Your task to perform on an android device: turn on airplane mode Image 0: 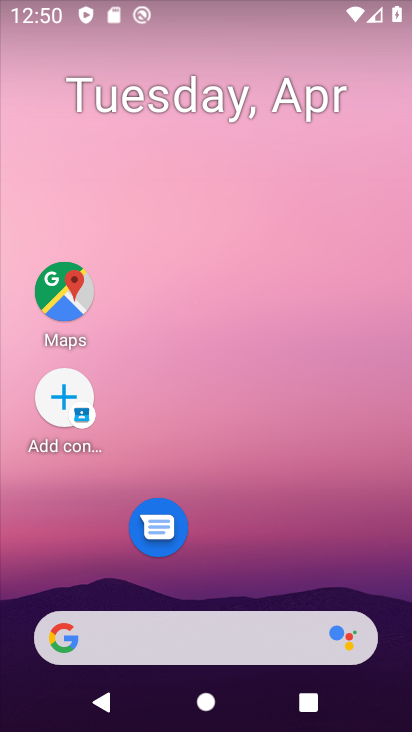
Step 0: drag from (255, 574) to (265, 47)
Your task to perform on an android device: turn on airplane mode Image 1: 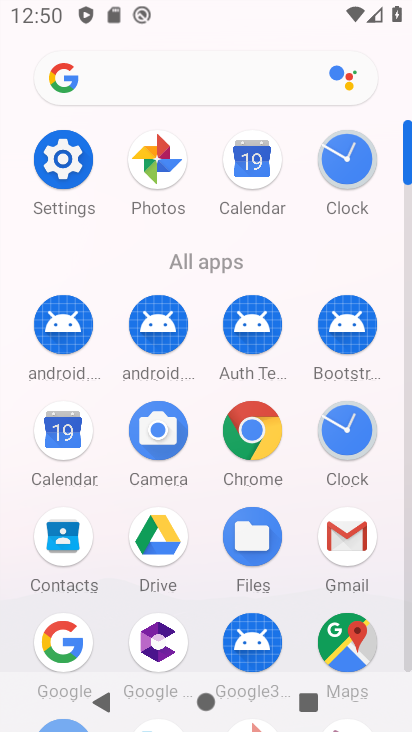
Step 1: click (60, 156)
Your task to perform on an android device: turn on airplane mode Image 2: 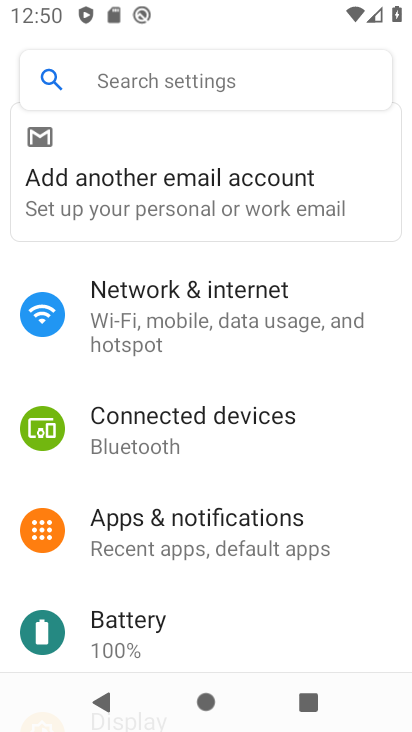
Step 2: click (187, 299)
Your task to perform on an android device: turn on airplane mode Image 3: 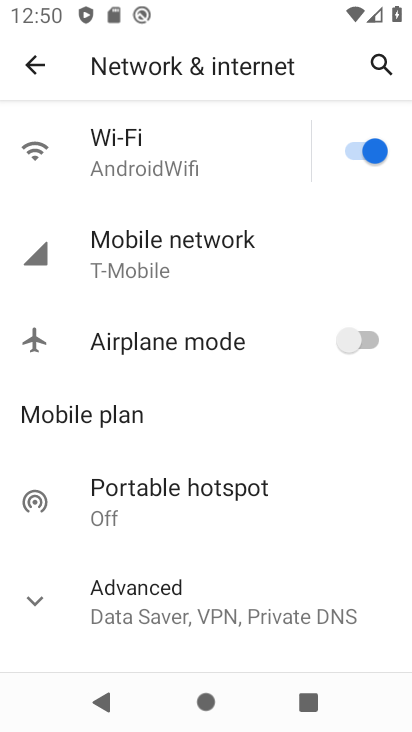
Step 3: click (357, 342)
Your task to perform on an android device: turn on airplane mode Image 4: 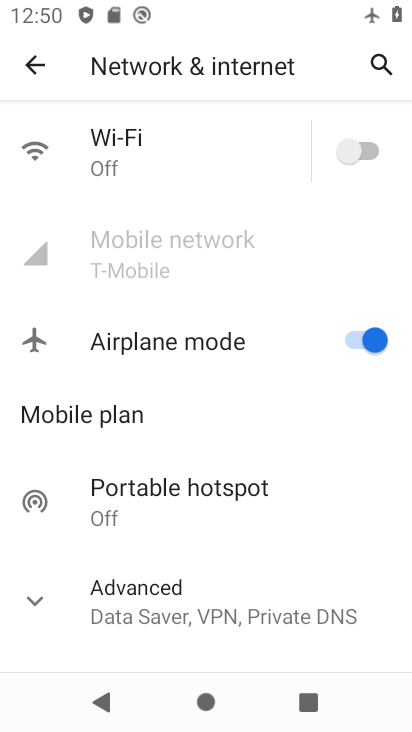
Step 4: task complete